Your task to perform on an android device: Go to wifi settings Image 0: 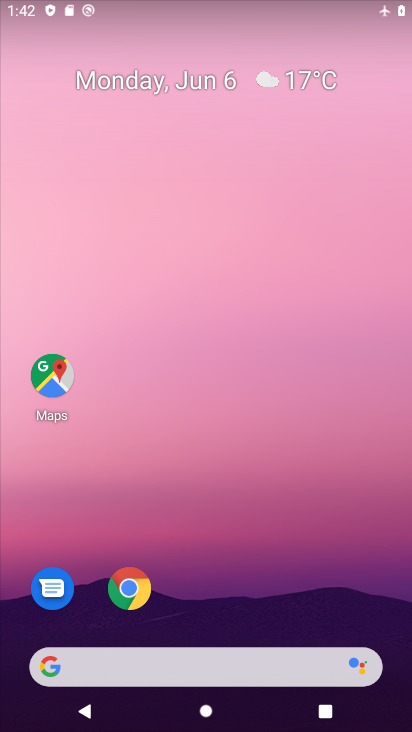
Step 0: drag from (213, 655) to (134, 8)
Your task to perform on an android device: Go to wifi settings Image 1: 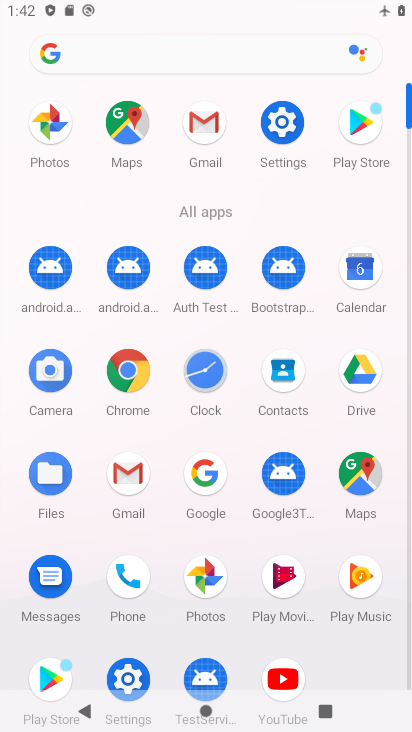
Step 1: click (294, 112)
Your task to perform on an android device: Go to wifi settings Image 2: 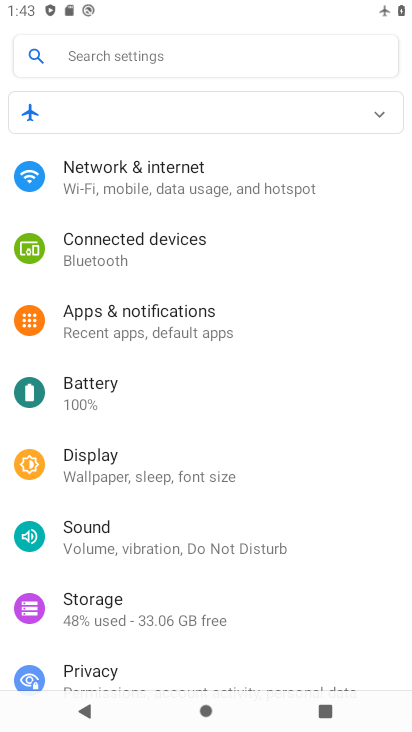
Step 2: click (160, 173)
Your task to perform on an android device: Go to wifi settings Image 3: 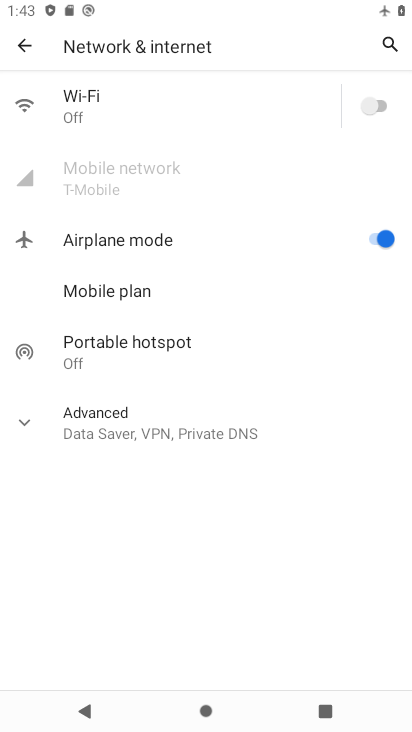
Step 3: click (166, 108)
Your task to perform on an android device: Go to wifi settings Image 4: 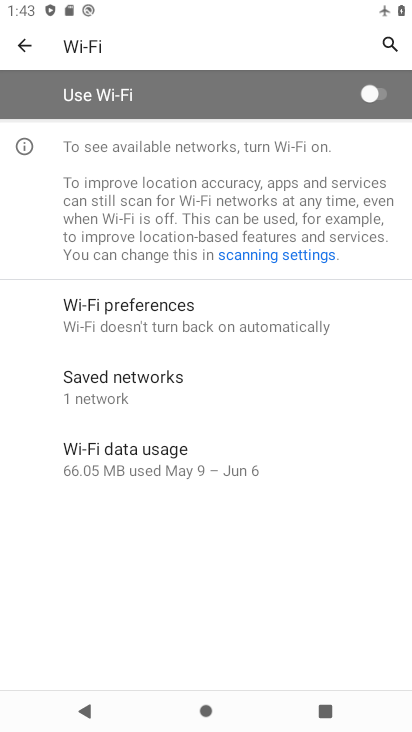
Step 4: task complete